Your task to perform on an android device: Open Google Chrome and click the shortcut for Amazon.com Image 0: 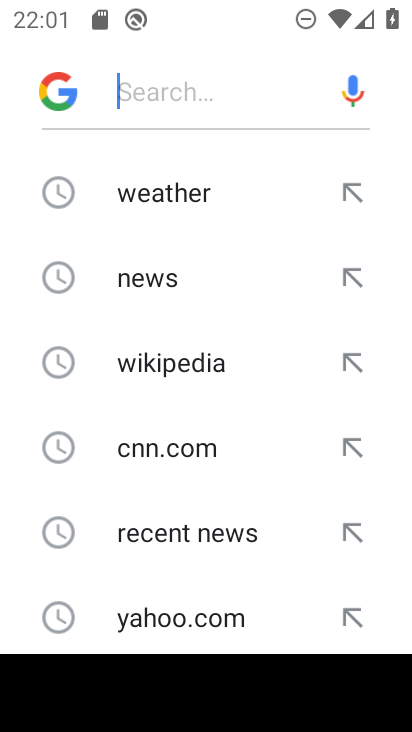
Step 0: press home button
Your task to perform on an android device: Open Google Chrome and click the shortcut for Amazon.com Image 1: 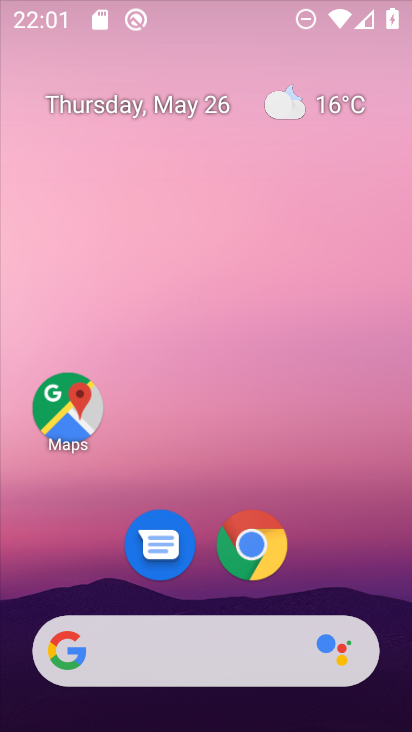
Step 1: click (257, 539)
Your task to perform on an android device: Open Google Chrome and click the shortcut for Amazon.com Image 2: 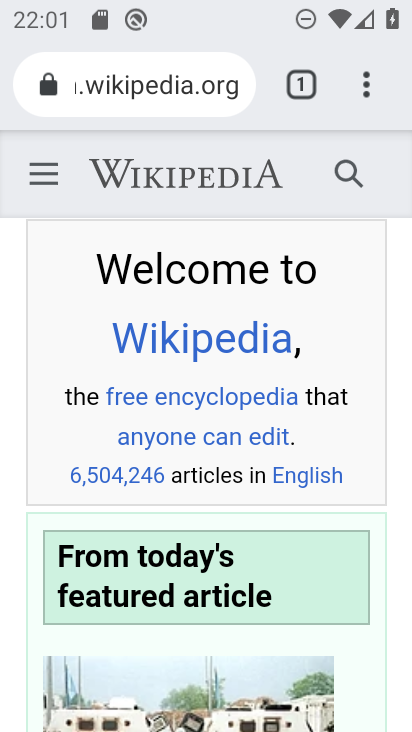
Step 2: press back button
Your task to perform on an android device: Open Google Chrome and click the shortcut for Amazon.com Image 3: 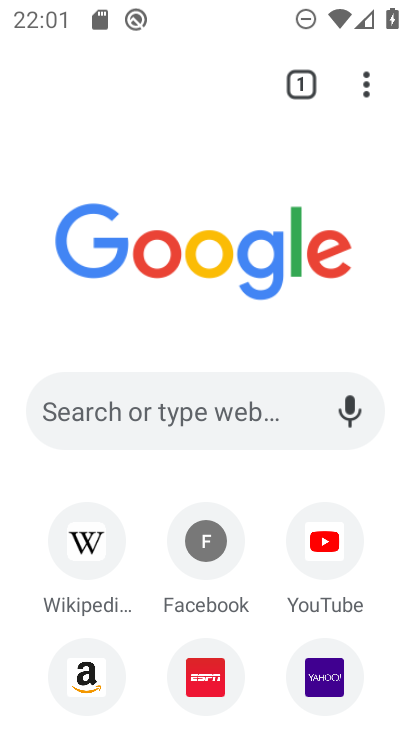
Step 3: click (99, 675)
Your task to perform on an android device: Open Google Chrome and click the shortcut for Amazon.com Image 4: 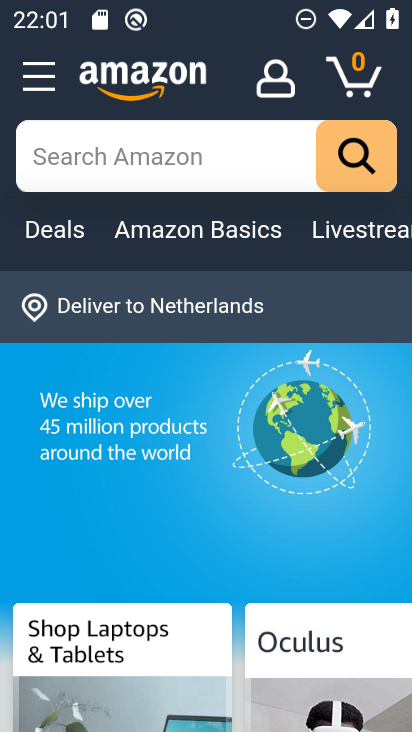
Step 4: task complete